Your task to perform on an android device: Open the map Image 0: 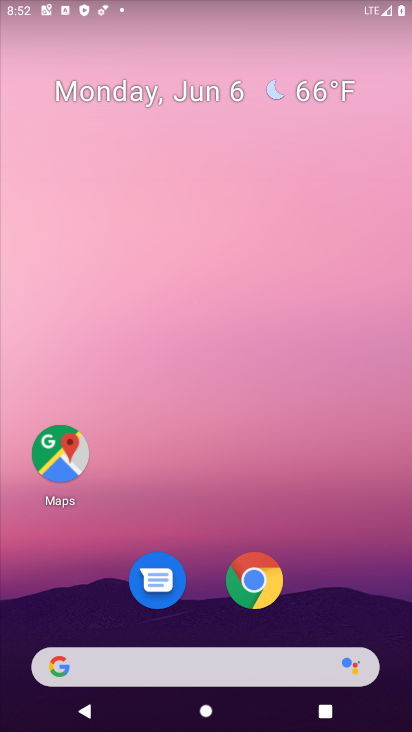
Step 0: drag from (295, 604) to (236, 26)
Your task to perform on an android device: Open the map Image 1: 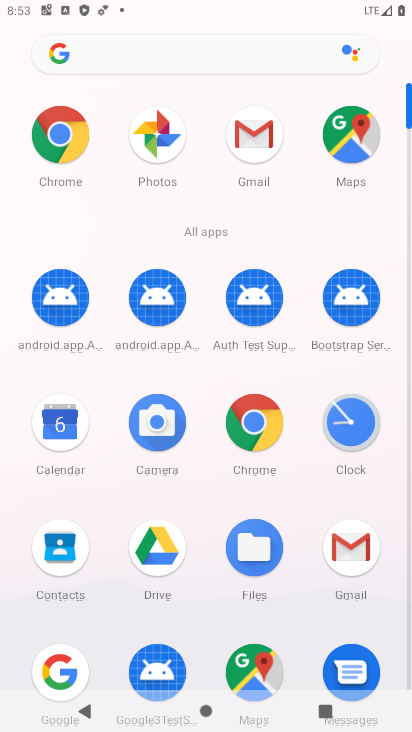
Step 1: click (343, 120)
Your task to perform on an android device: Open the map Image 2: 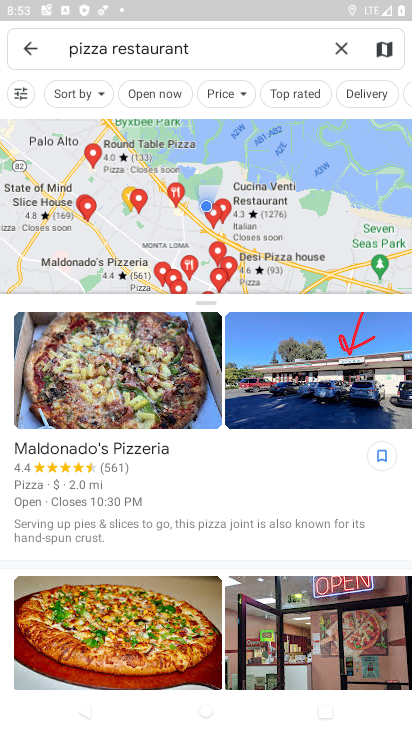
Step 2: task complete